Your task to perform on an android device: turn on wifi Image 0: 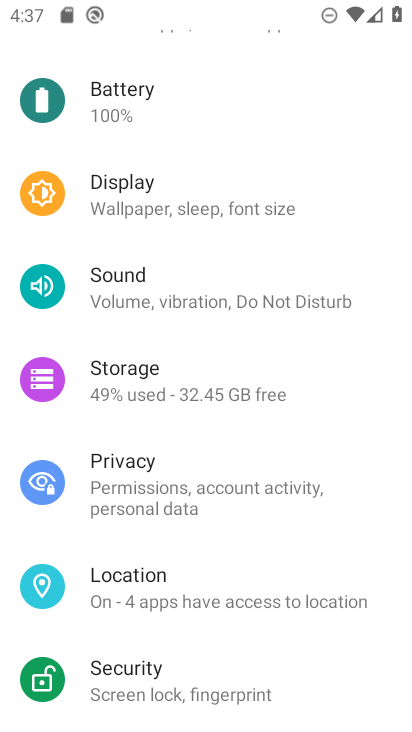
Step 0: drag from (247, 220) to (255, 731)
Your task to perform on an android device: turn on wifi Image 1: 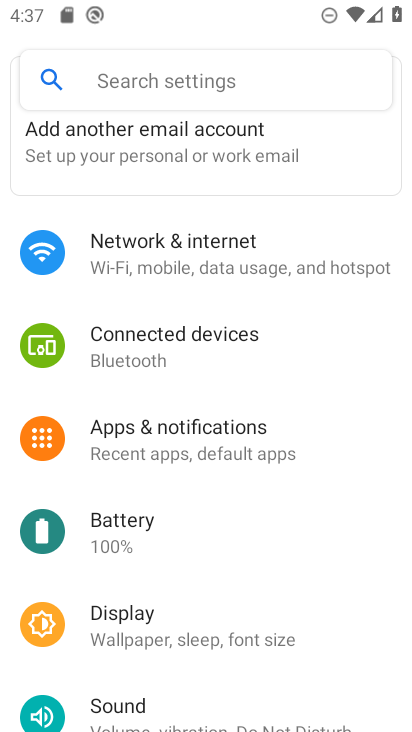
Step 1: click (226, 265)
Your task to perform on an android device: turn on wifi Image 2: 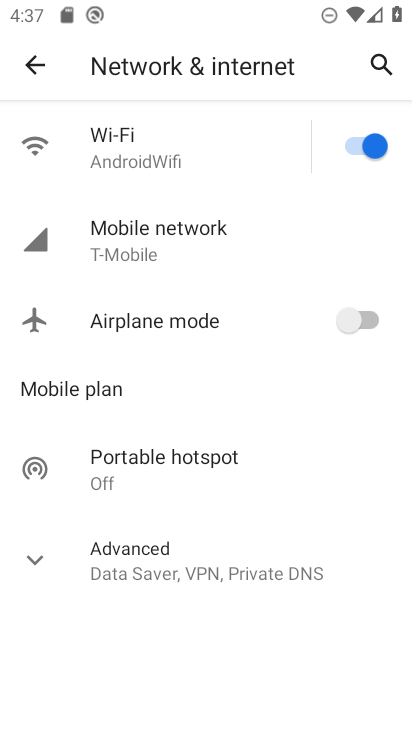
Step 2: task complete